Your task to perform on an android device: Open the stopwatch Image 0: 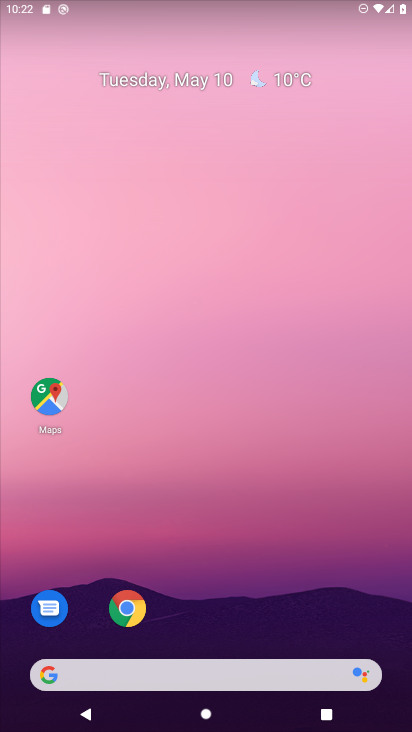
Step 0: drag from (373, 607) to (268, 71)
Your task to perform on an android device: Open the stopwatch Image 1: 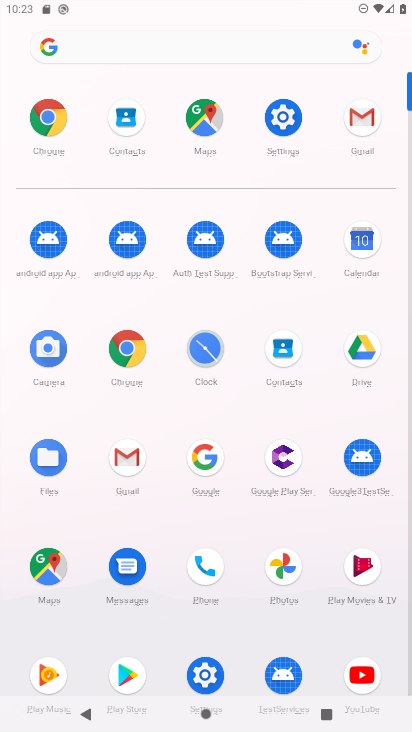
Step 1: click (213, 358)
Your task to perform on an android device: Open the stopwatch Image 2: 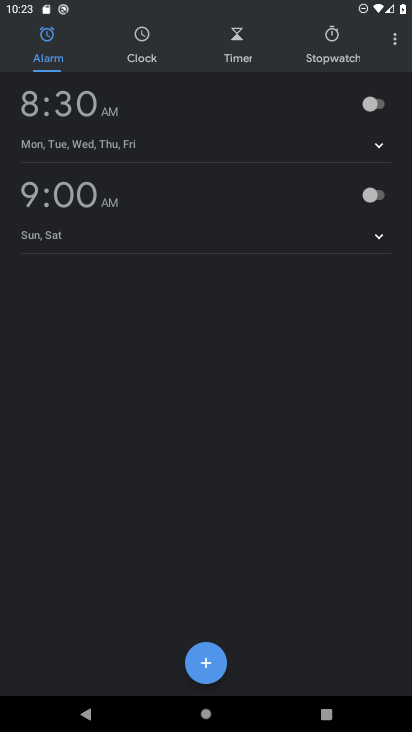
Step 2: click (346, 32)
Your task to perform on an android device: Open the stopwatch Image 3: 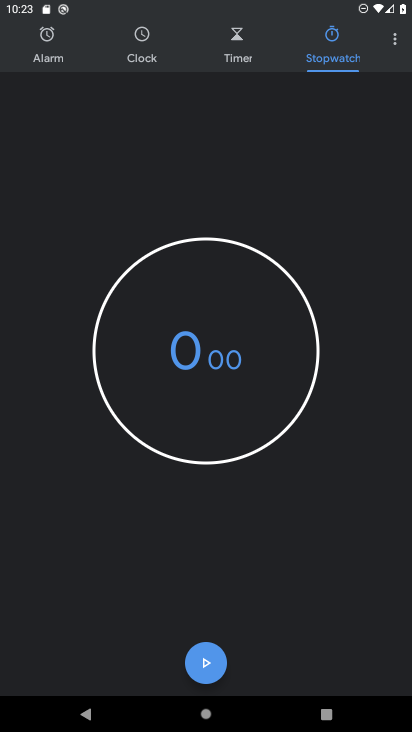
Step 3: task complete